Your task to perform on an android device: Open Chrome and go to settings Image 0: 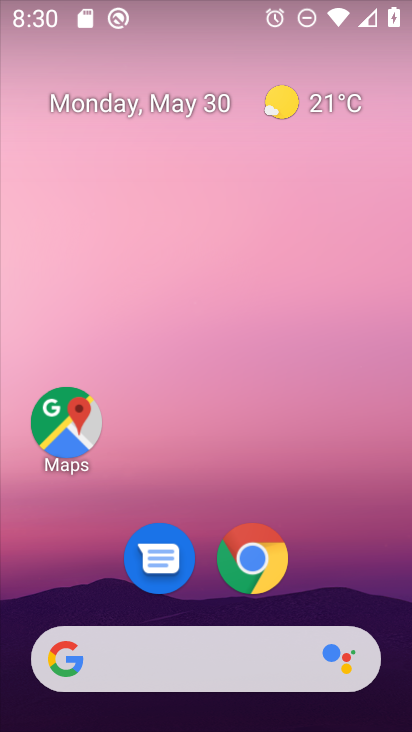
Step 0: click (256, 556)
Your task to perform on an android device: Open Chrome and go to settings Image 1: 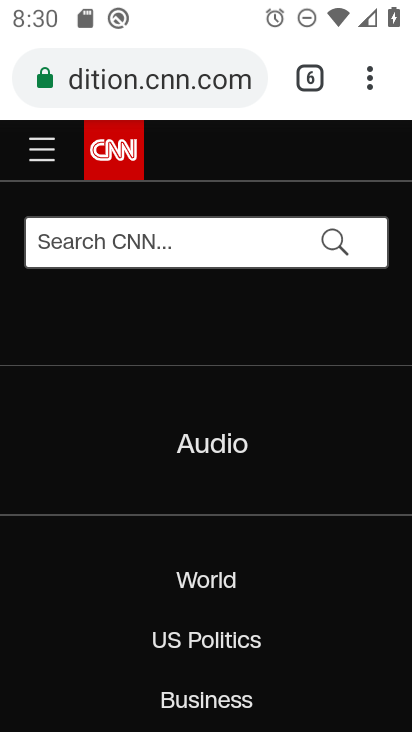
Step 1: click (370, 77)
Your task to perform on an android device: Open Chrome and go to settings Image 2: 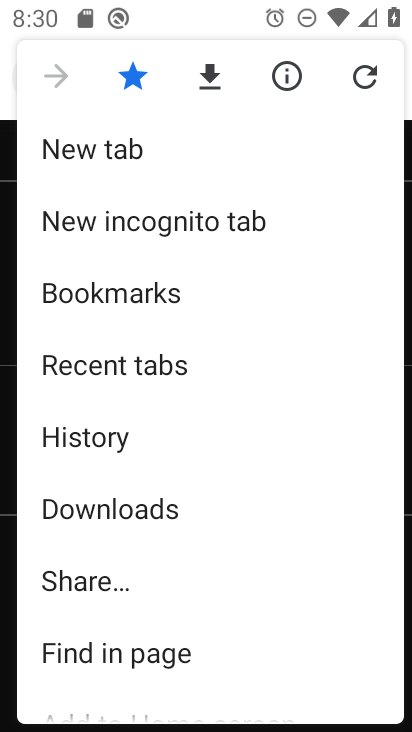
Step 2: drag from (181, 558) to (155, 270)
Your task to perform on an android device: Open Chrome and go to settings Image 3: 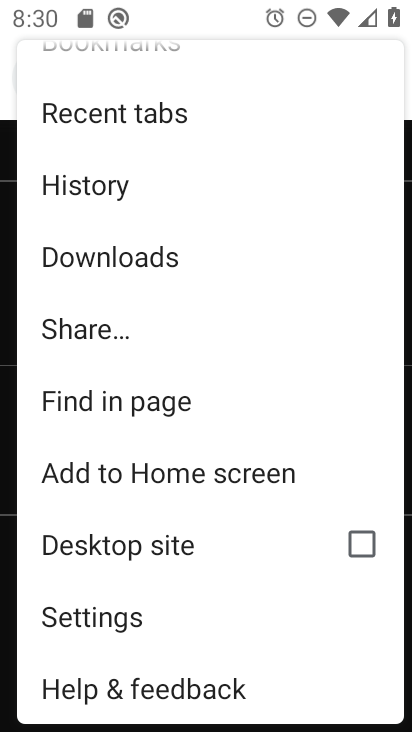
Step 3: click (115, 611)
Your task to perform on an android device: Open Chrome and go to settings Image 4: 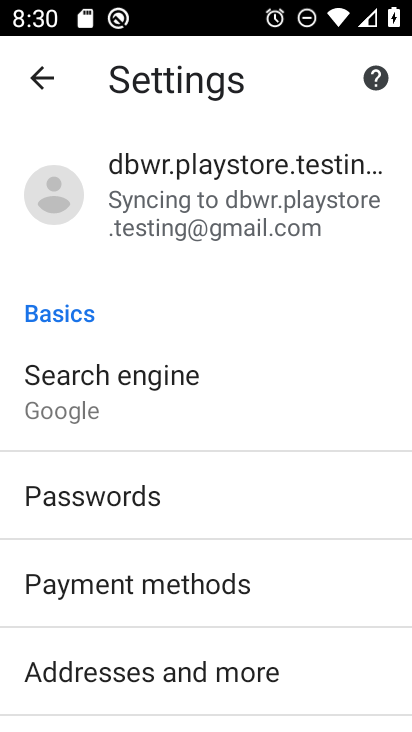
Step 4: task complete